Your task to perform on an android device: toggle data saver in the chrome app Image 0: 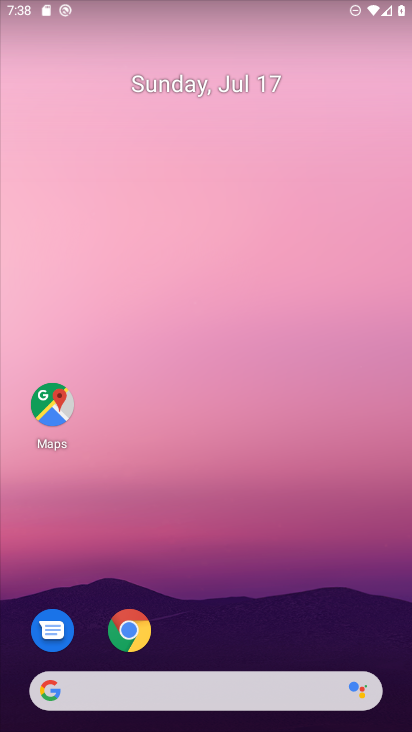
Step 0: drag from (305, 599) to (141, 34)
Your task to perform on an android device: toggle data saver in the chrome app Image 1: 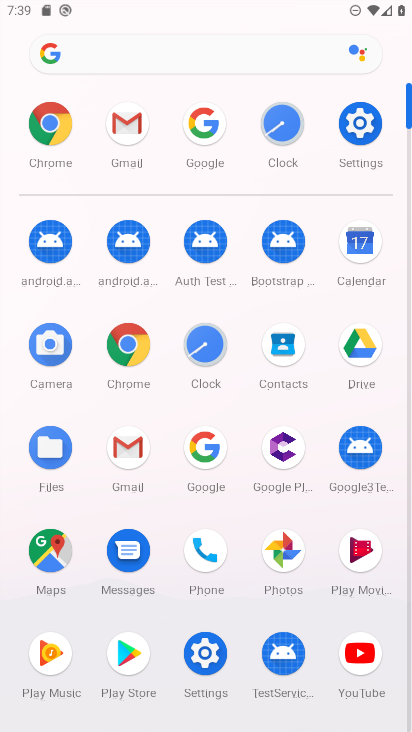
Step 1: click (123, 361)
Your task to perform on an android device: toggle data saver in the chrome app Image 2: 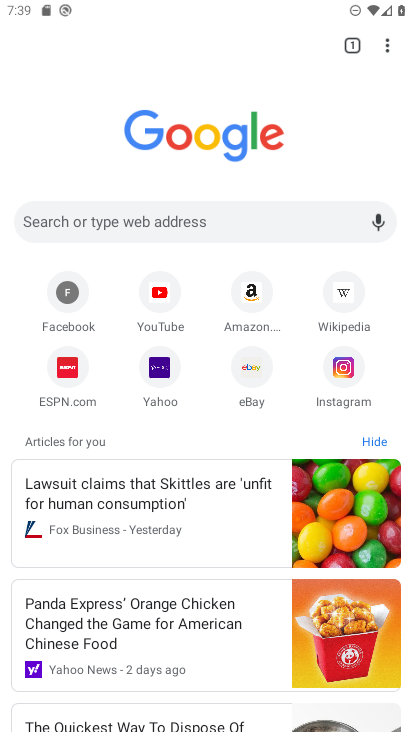
Step 2: click (389, 40)
Your task to perform on an android device: toggle data saver in the chrome app Image 3: 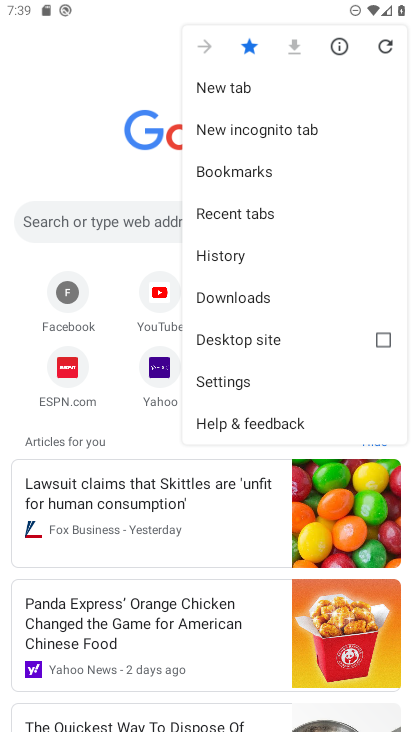
Step 3: click (234, 383)
Your task to perform on an android device: toggle data saver in the chrome app Image 4: 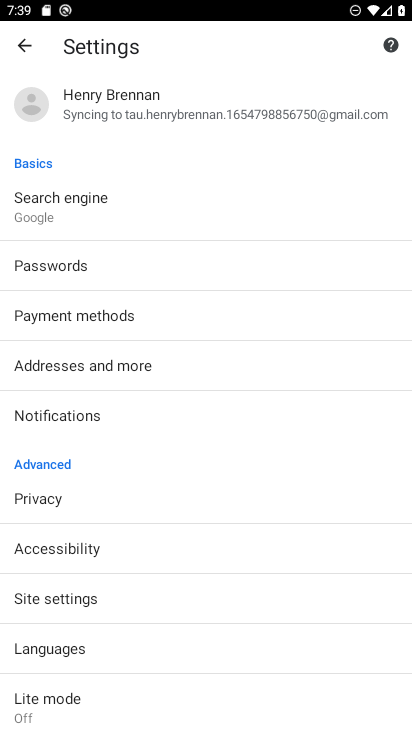
Step 4: click (61, 707)
Your task to perform on an android device: toggle data saver in the chrome app Image 5: 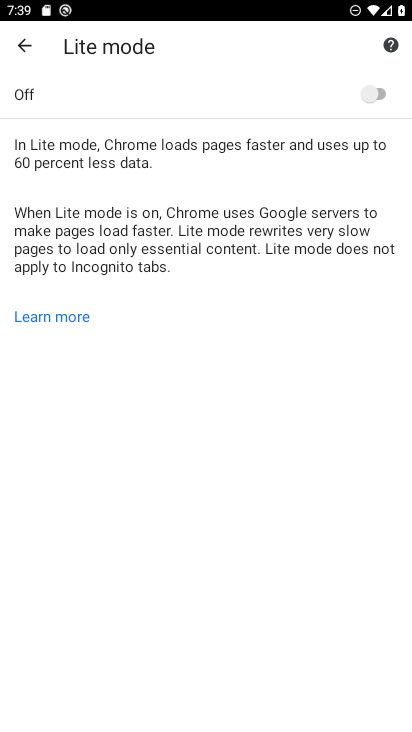
Step 5: click (352, 99)
Your task to perform on an android device: toggle data saver in the chrome app Image 6: 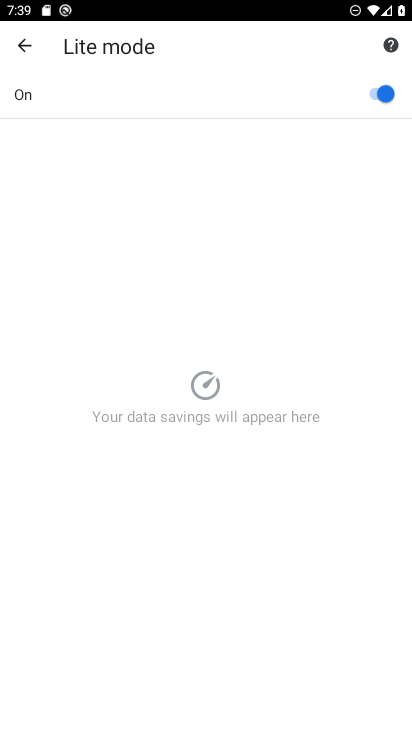
Step 6: task complete